Your task to perform on an android device: What's the weather going to be tomorrow? Image 0: 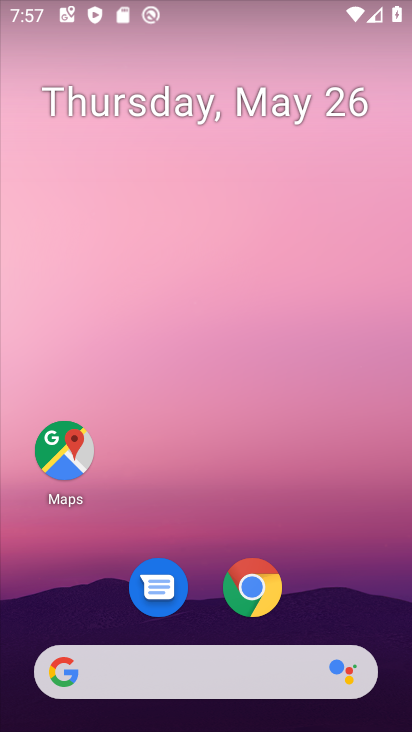
Step 0: drag from (214, 616) to (282, 163)
Your task to perform on an android device: What's the weather going to be tomorrow? Image 1: 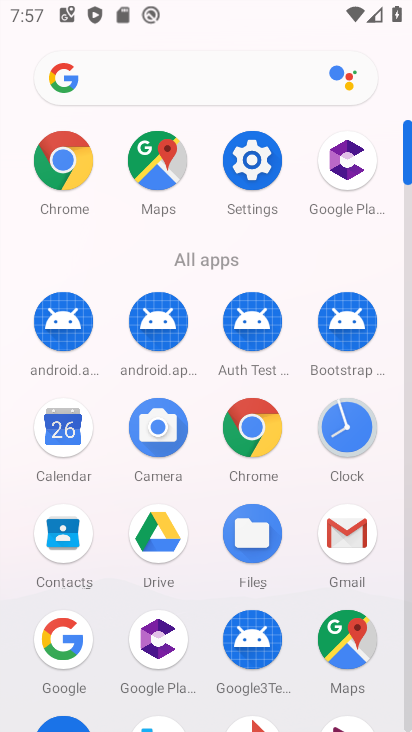
Step 1: click (76, 633)
Your task to perform on an android device: What's the weather going to be tomorrow? Image 2: 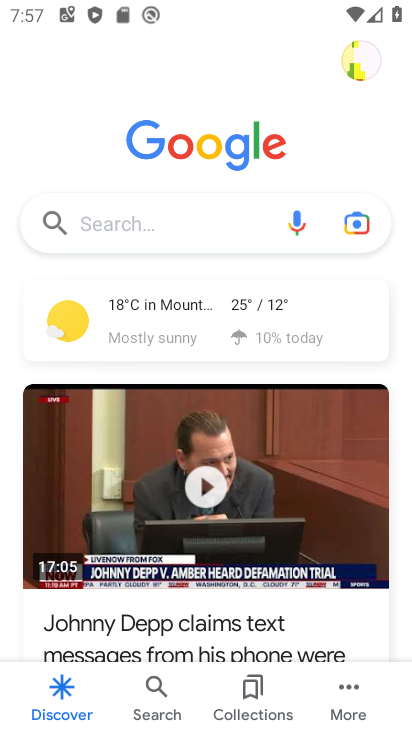
Step 2: click (166, 318)
Your task to perform on an android device: What's the weather going to be tomorrow? Image 3: 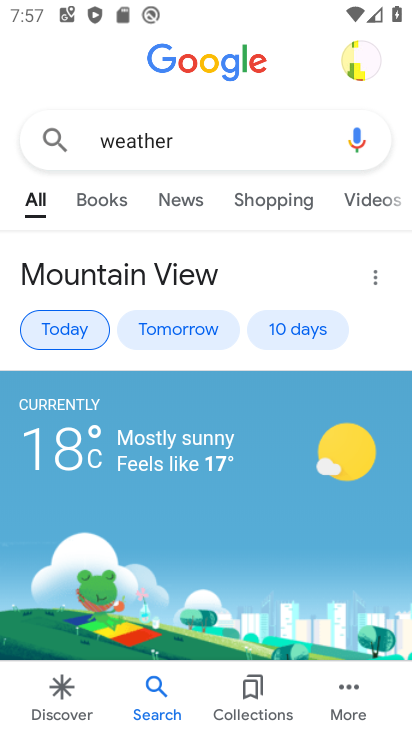
Step 3: click (172, 341)
Your task to perform on an android device: What's the weather going to be tomorrow? Image 4: 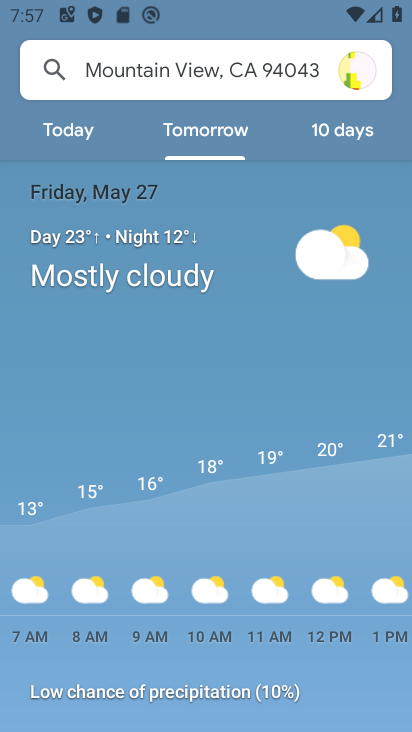
Step 4: task complete